Your task to perform on an android device: toggle notifications settings in the gmail app Image 0: 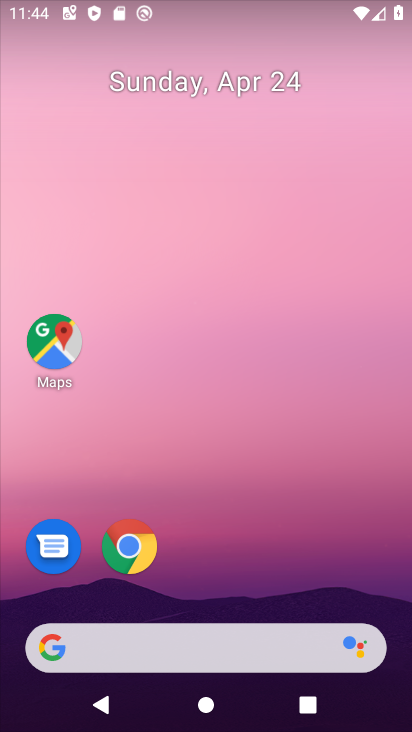
Step 0: drag from (217, 584) to (221, 161)
Your task to perform on an android device: toggle notifications settings in the gmail app Image 1: 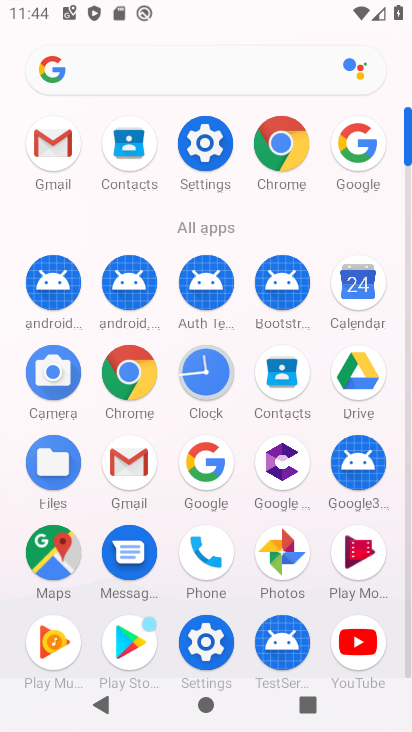
Step 1: click (44, 147)
Your task to perform on an android device: toggle notifications settings in the gmail app Image 2: 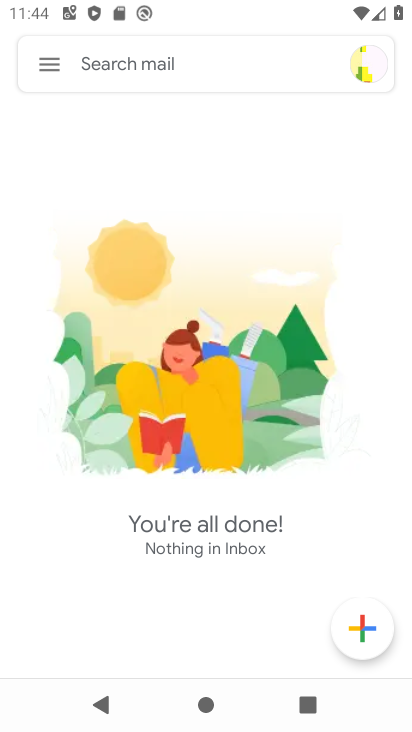
Step 2: click (44, 60)
Your task to perform on an android device: toggle notifications settings in the gmail app Image 3: 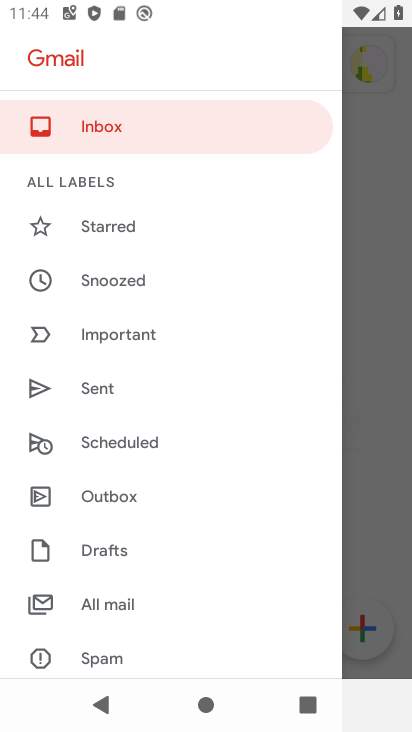
Step 3: drag from (141, 618) to (154, 286)
Your task to perform on an android device: toggle notifications settings in the gmail app Image 4: 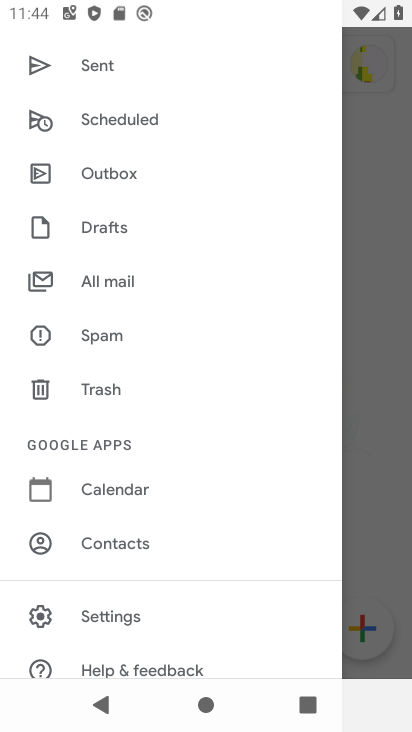
Step 4: click (115, 622)
Your task to perform on an android device: toggle notifications settings in the gmail app Image 5: 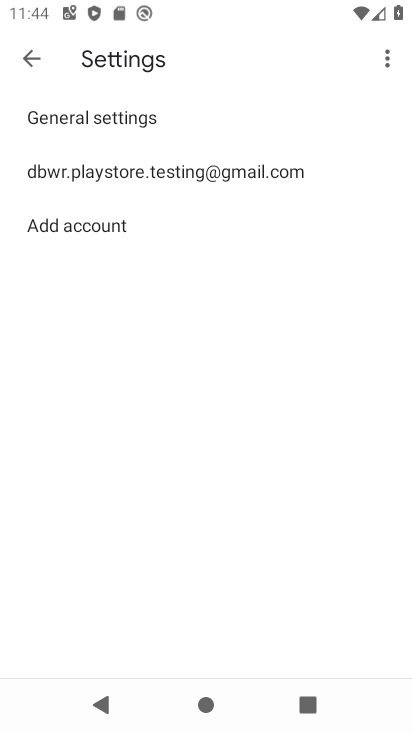
Step 5: click (160, 171)
Your task to perform on an android device: toggle notifications settings in the gmail app Image 6: 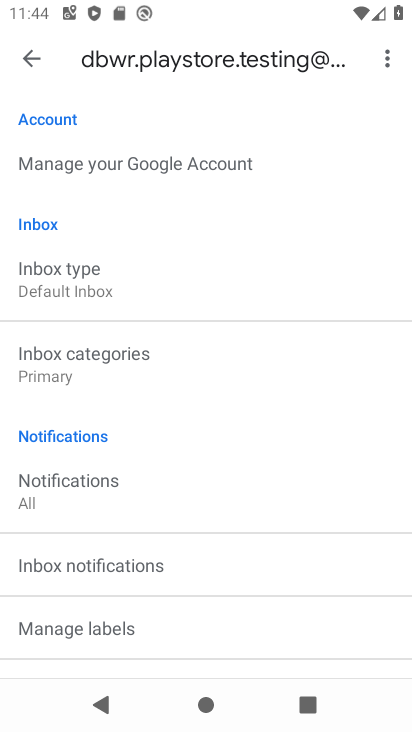
Step 6: drag from (137, 626) to (121, 544)
Your task to perform on an android device: toggle notifications settings in the gmail app Image 7: 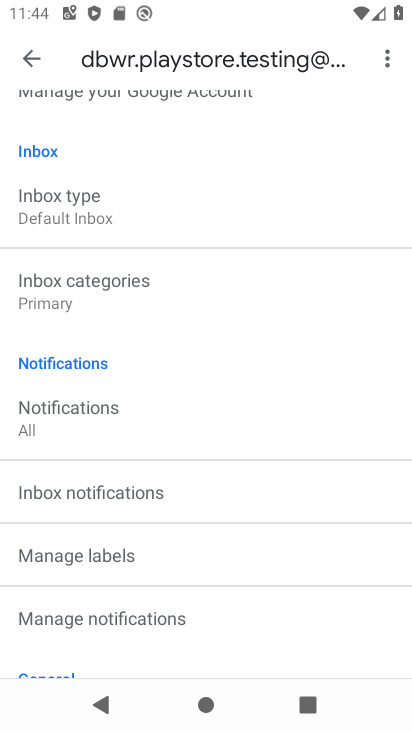
Step 7: click (146, 612)
Your task to perform on an android device: toggle notifications settings in the gmail app Image 8: 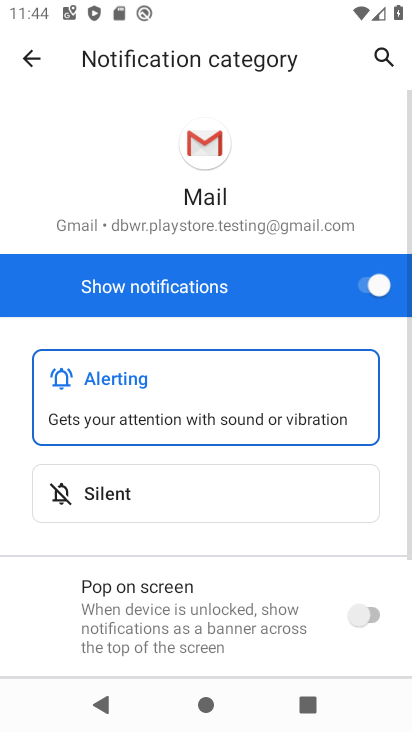
Step 8: click (362, 280)
Your task to perform on an android device: toggle notifications settings in the gmail app Image 9: 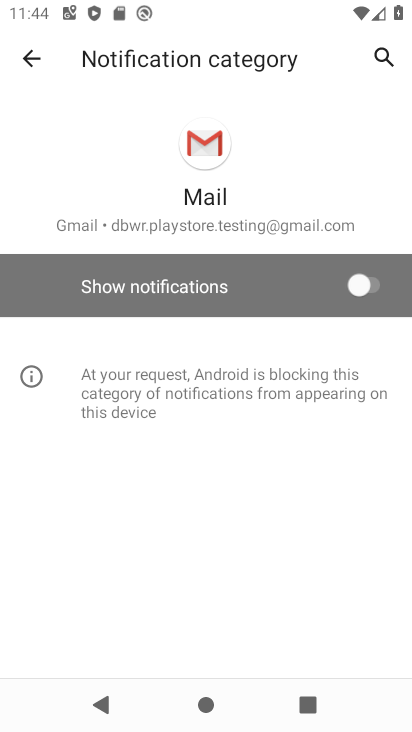
Step 9: task complete